Your task to perform on an android device: toggle javascript in the chrome app Image 0: 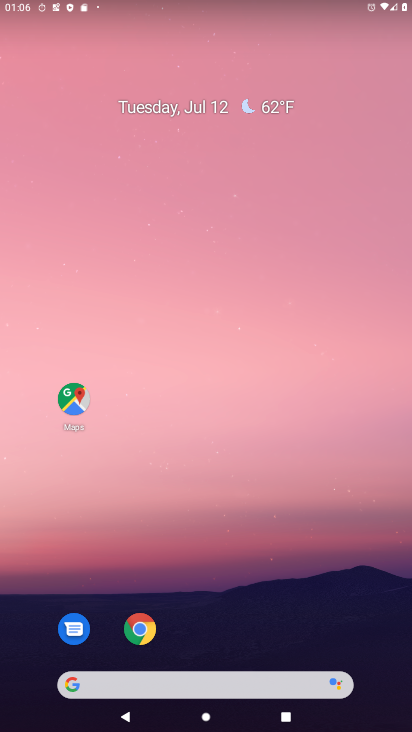
Step 0: press home button
Your task to perform on an android device: toggle javascript in the chrome app Image 1: 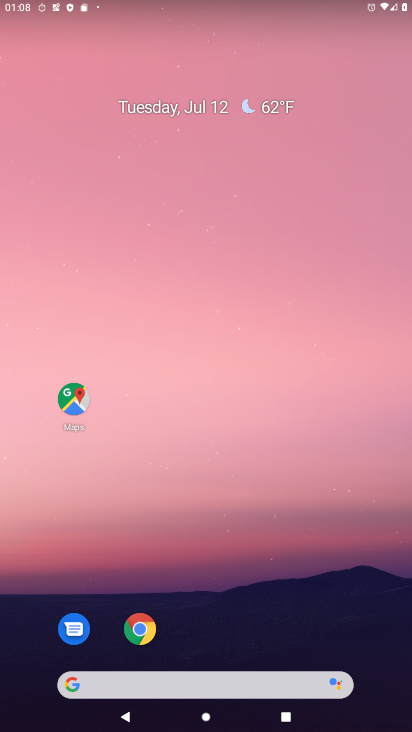
Step 1: click (147, 614)
Your task to perform on an android device: toggle javascript in the chrome app Image 2: 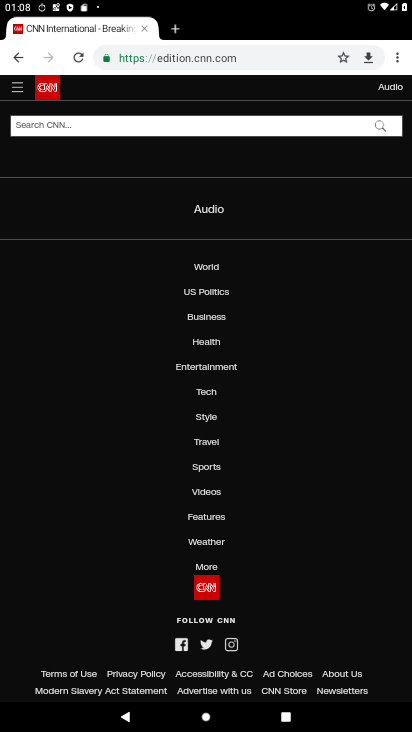
Step 2: drag from (401, 59) to (311, 386)
Your task to perform on an android device: toggle javascript in the chrome app Image 3: 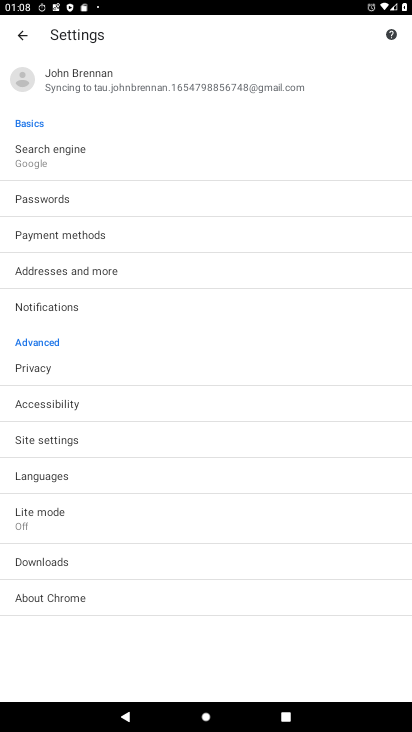
Step 3: click (34, 435)
Your task to perform on an android device: toggle javascript in the chrome app Image 4: 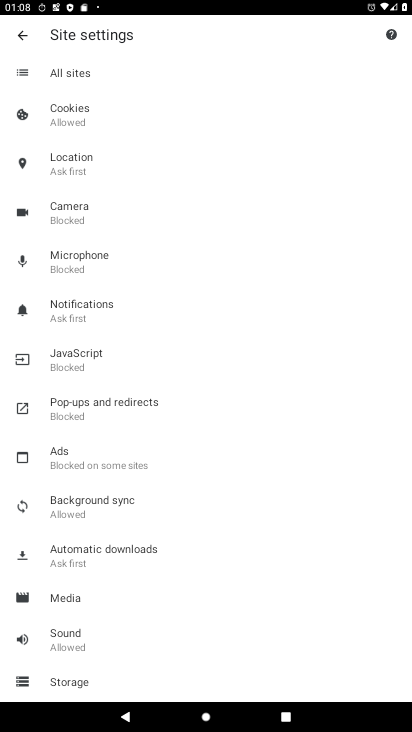
Step 4: click (93, 369)
Your task to perform on an android device: toggle javascript in the chrome app Image 5: 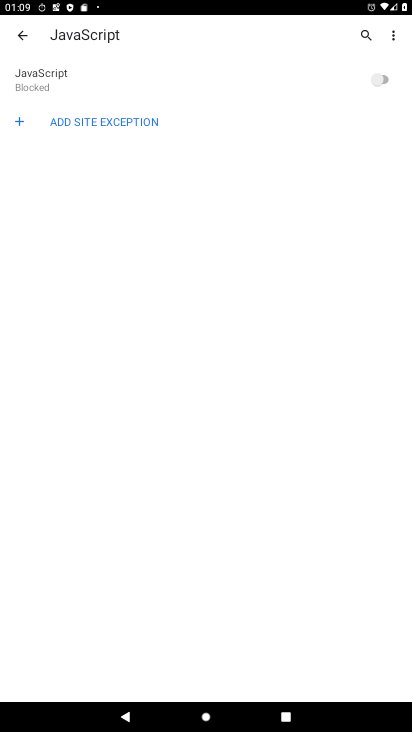
Step 5: click (184, 100)
Your task to perform on an android device: toggle javascript in the chrome app Image 6: 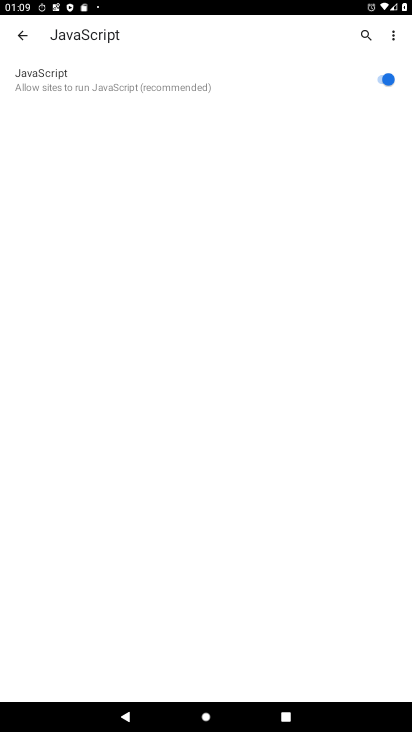
Step 6: task complete